Your task to perform on an android device: What is the recent news? Image 0: 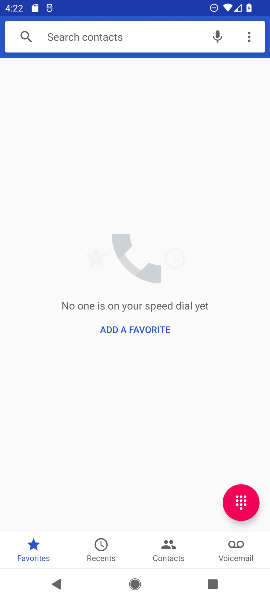
Step 0: press home button
Your task to perform on an android device: What is the recent news? Image 1: 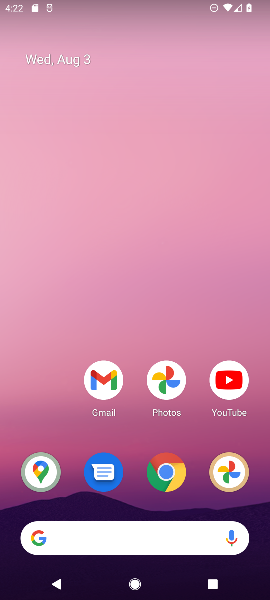
Step 1: drag from (242, 497) to (76, 68)
Your task to perform on an android device: What is the recent news? Image 2: 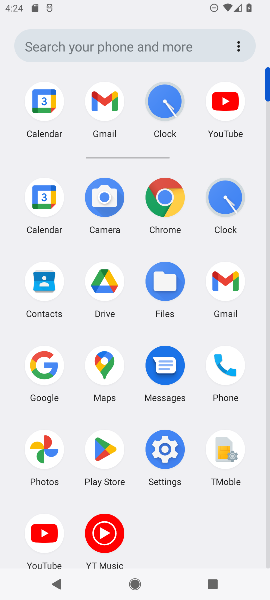
Step 2: click (28, 367)
Your task to perform on an android device: What is the recent news? Image 3: 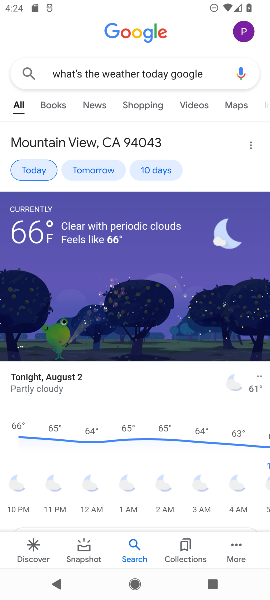
Step 3: press back button
Your task to perform on an android device: What is the recent news? Image 4: 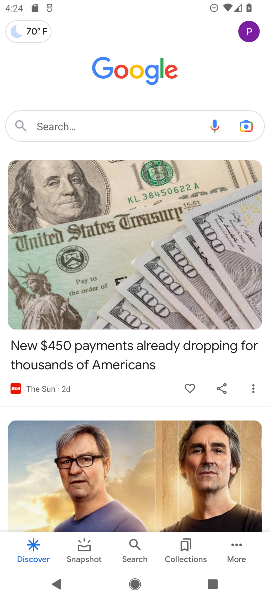
Step 4: click (62, 124)
Your task to perform on an android device: What is the recent news? Image 5: 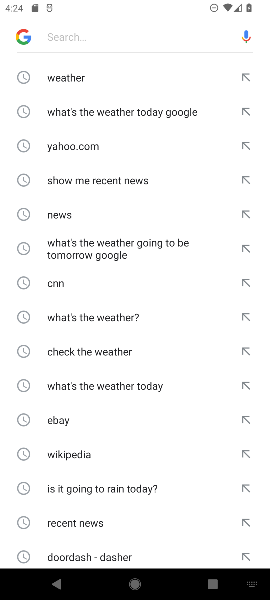
Step 5: type "What is the recent news?"
Your task to perform on an android device: What is the recent news? Image 6: 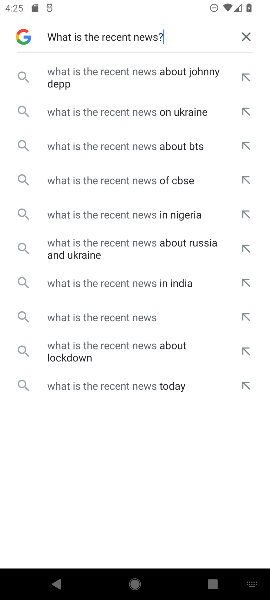
Step 6: click (120, 322)
Your task to perform on an android device: What is the recent news? Image 7: 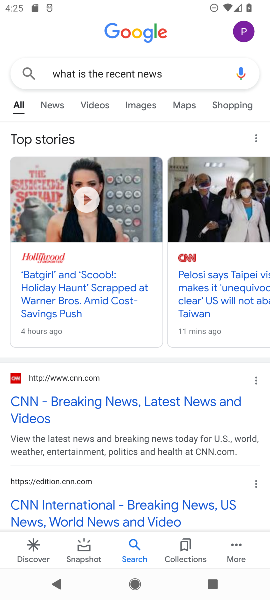
Step 7: task complete